Your task to perform on an android device: toggle airplane mode Image 0: 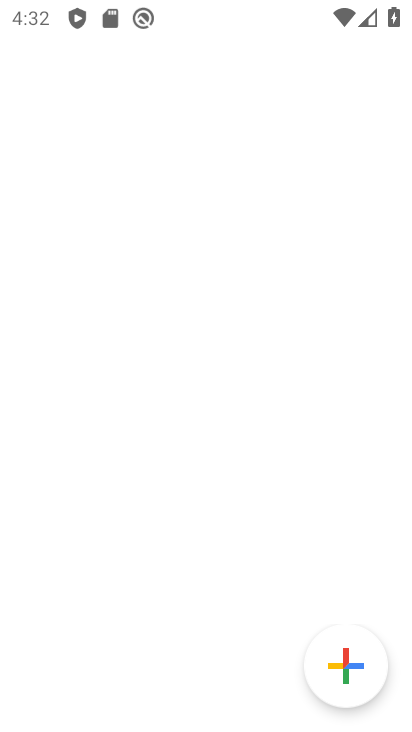
Step 0: click (266, 568)
Your task to perform on an android device: toggle airplane mode Image 1: 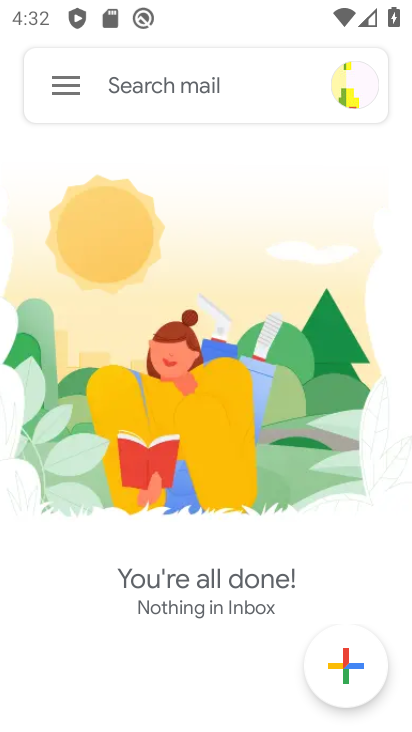
Step 1: press back button
Your task to perform on an android device: toggle airplane mode Image 2: 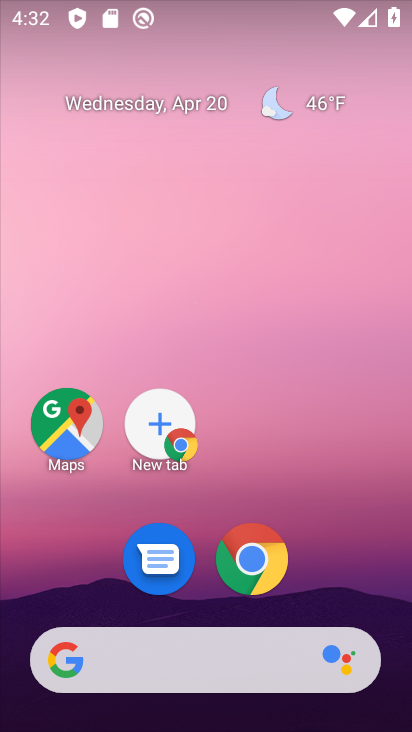
Step 2: drag from (342, 520) to (283, 19)
Your task to perform on an android device: toggle airplane mode Image 3: 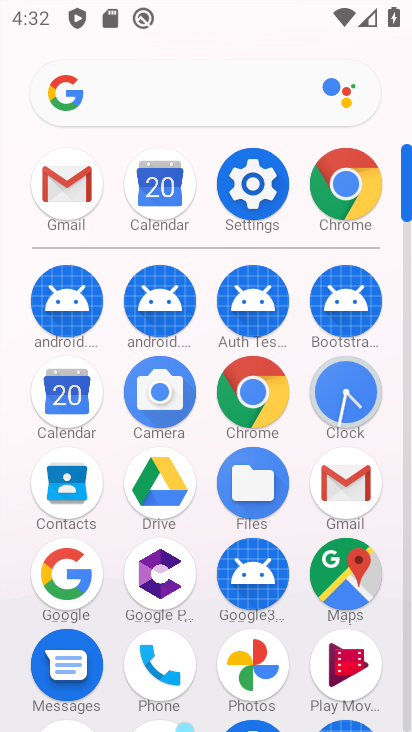
Step 3: click (243, 161)
Your task to perform on an android device: toggle airplane mode Image 4: 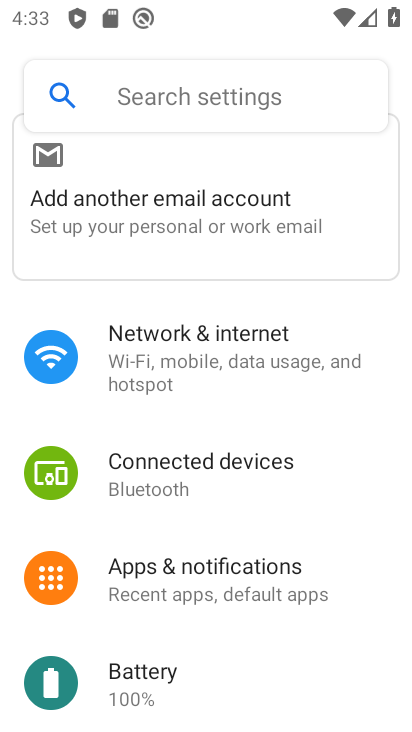
Step 4: click (227, 379)
Your task to perform on an android device: toggle airplane mode Image 5: 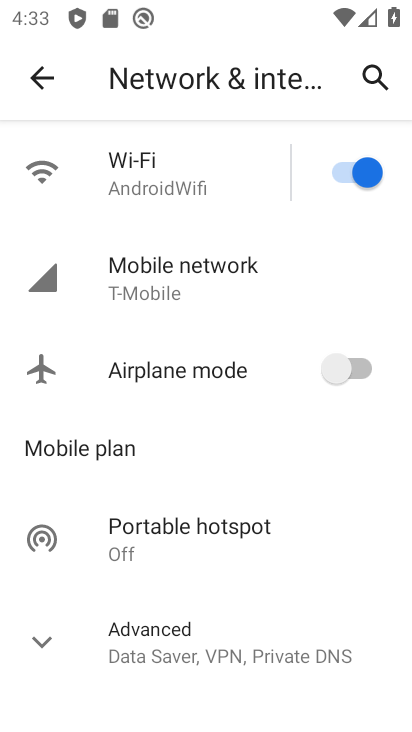
Step 5: click (267, 361)
Your task to perform on an android device: toggle airplane mode Image 6: 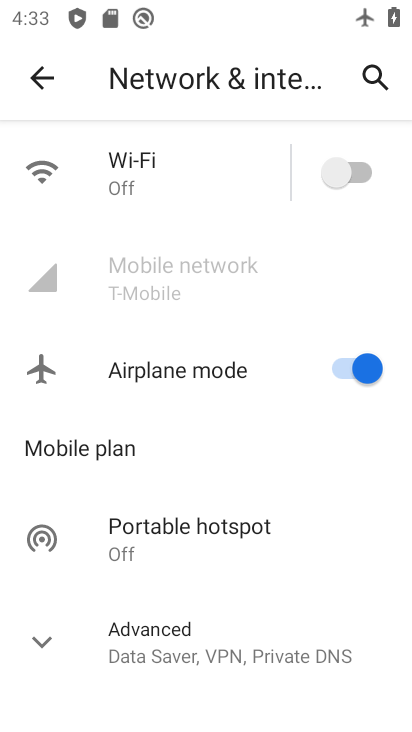
Step 6: task complete